Your task to perform on an android device: check storage Image 0: 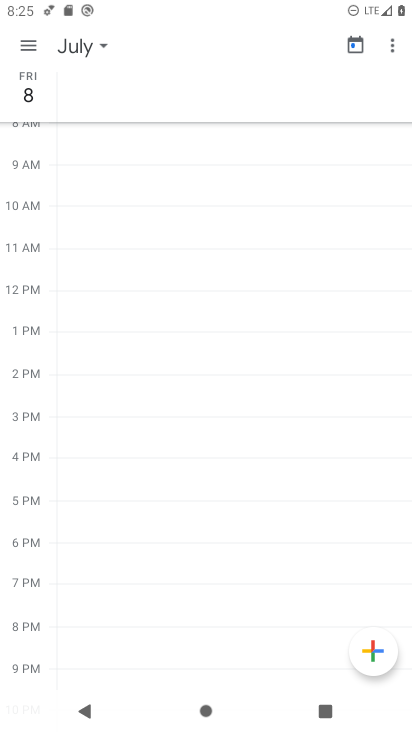
Step 0: press home button
Your task to perform on an android device: check storage Image 1: 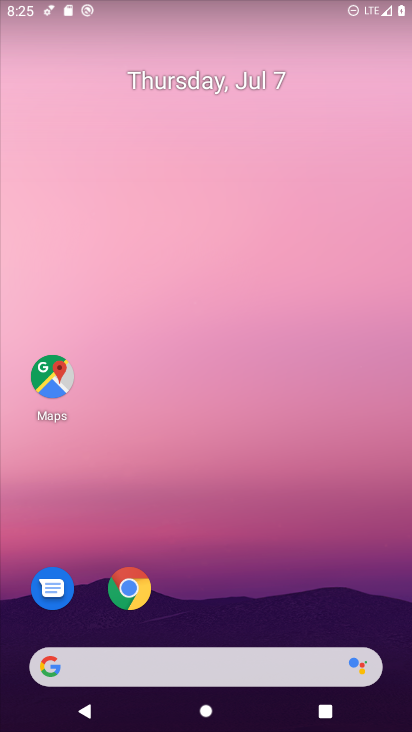
Step 1: drag from (286, 636) to (262, 132)
Your task to perform on an android device: check storage Image 2: 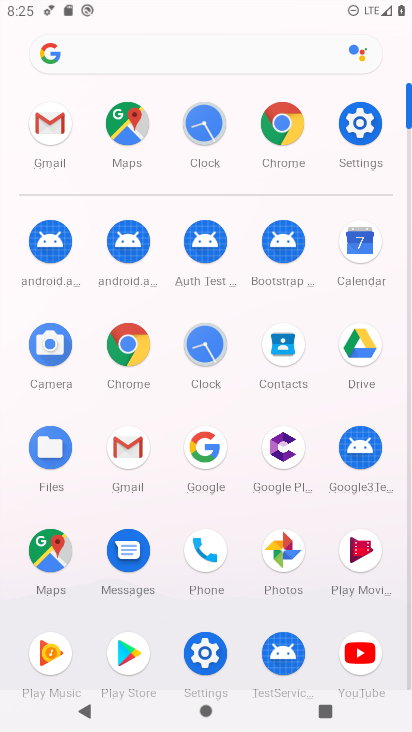
Step 2: click (347, 115)
Your task to perform on an android device: check storage Image 3: 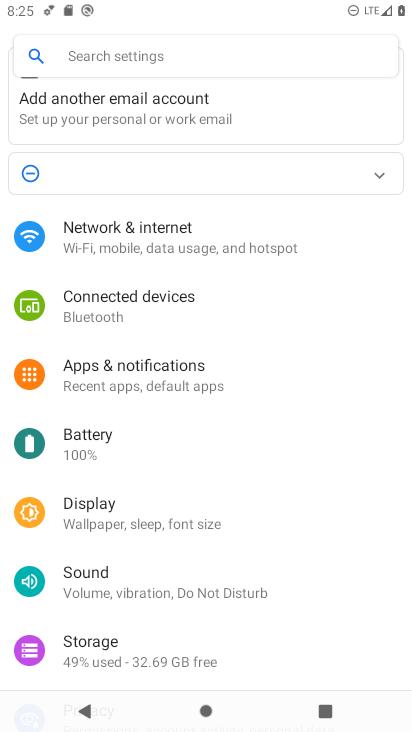
Step 3: click (114, 639)
Your task to perform on an android device: check storage Image 4: 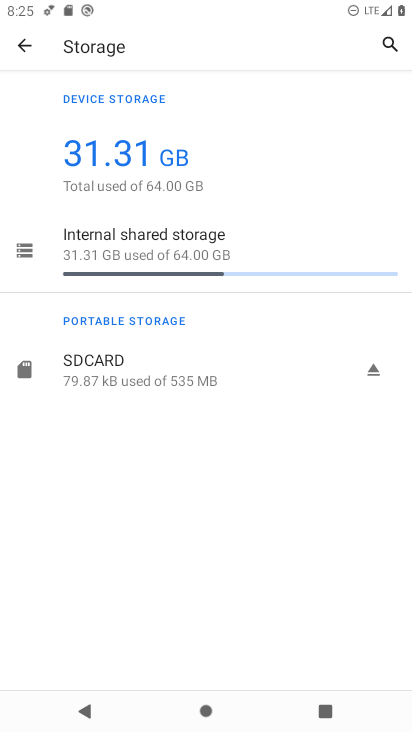
Step 4: task complete